Your task to perform on an android device: toggle pop-ups in chrome Image 0: 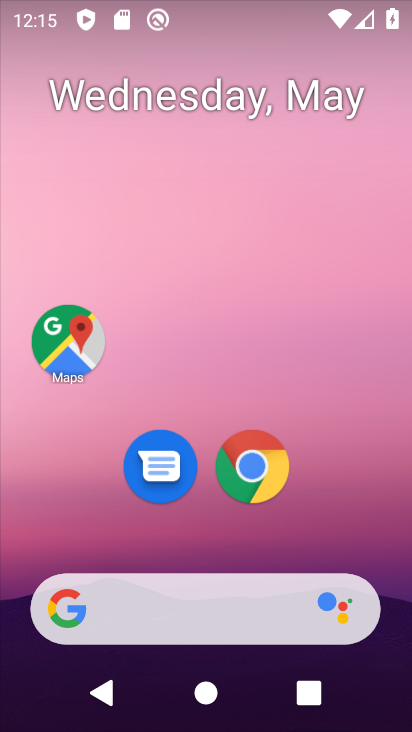
Step 0: click (249, 487)
Your task to perform on an android device: toggle pop-ups in chrome Image 1: 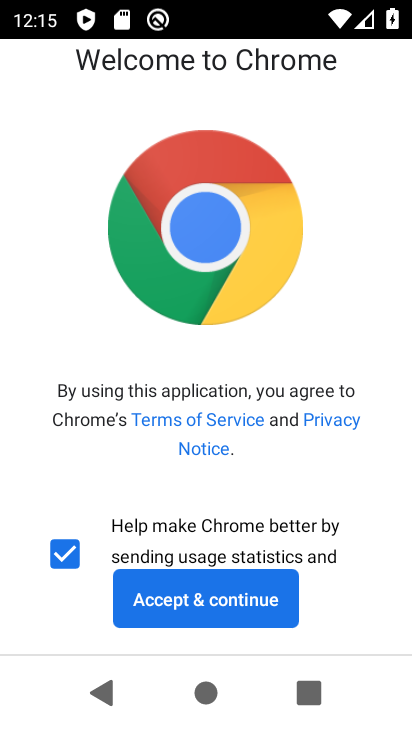
Step 1: click (237, 610)
Your task to perform on an android device: toggle pop-ups in chrome Image 2: 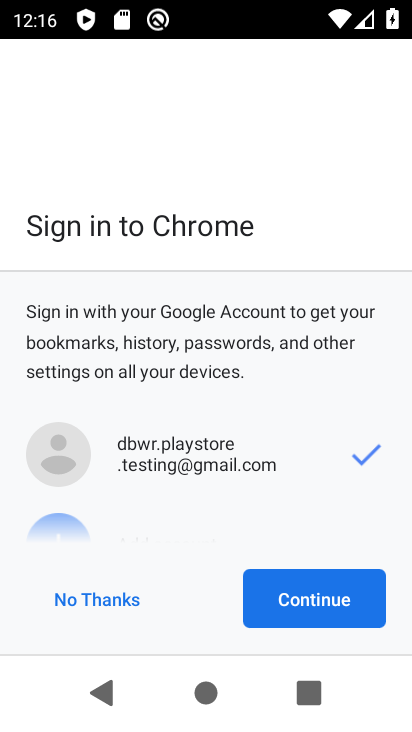
Step 2: click (352, 603)
Your task to perform on an android device: toggle pop-ups in chrome Image 3: 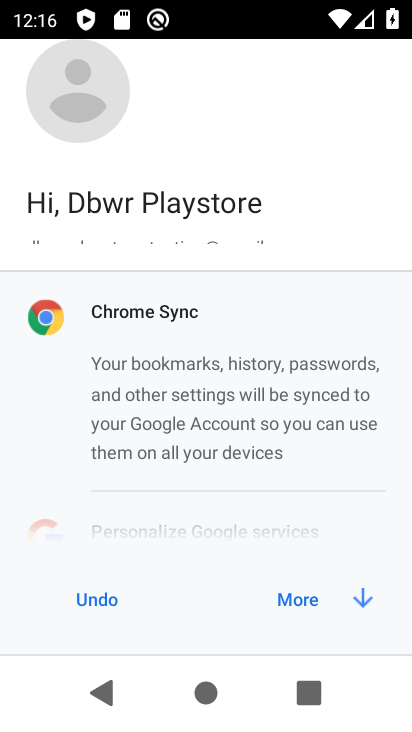
Step 3: click (352, 603)
Your task to perform on an android device: toggle pop-ups in chrome Image 4: 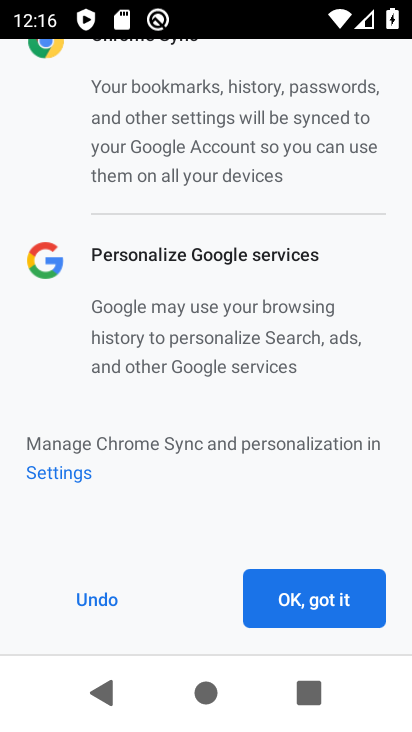
Step 4: click (352, 603)
Your task to perform on an android device: toggle pop-ups in chrome Image 5: 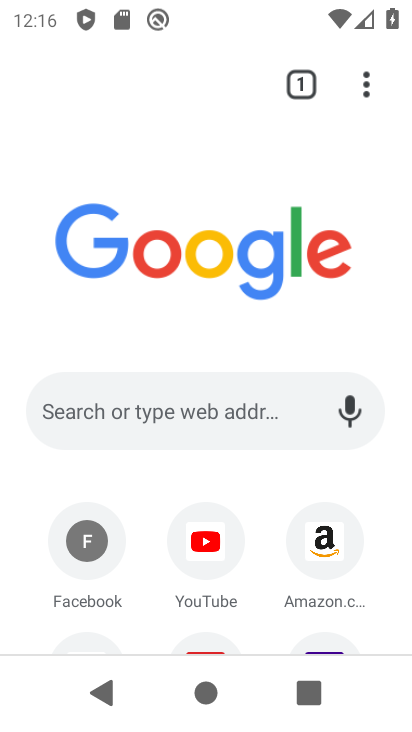
Step 5: click (376, 91)
Your task to perform on an android device: toggle pop-ups in chrome Image 6: 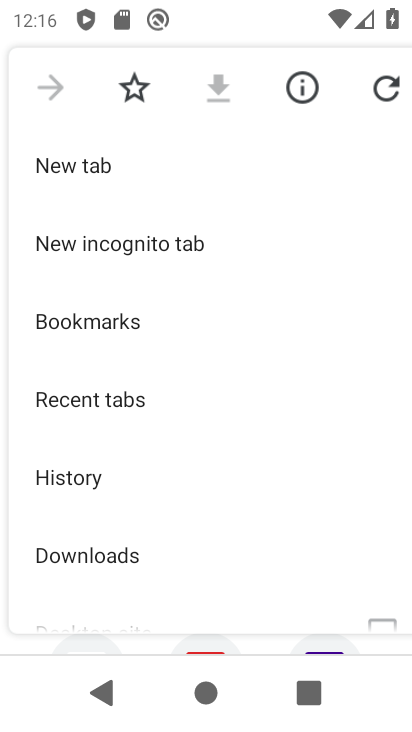
Step 6: drag from (198, 552) to (141, 127)
Your task to perform on an android device: toggle pop-ups in chrome Image 7: 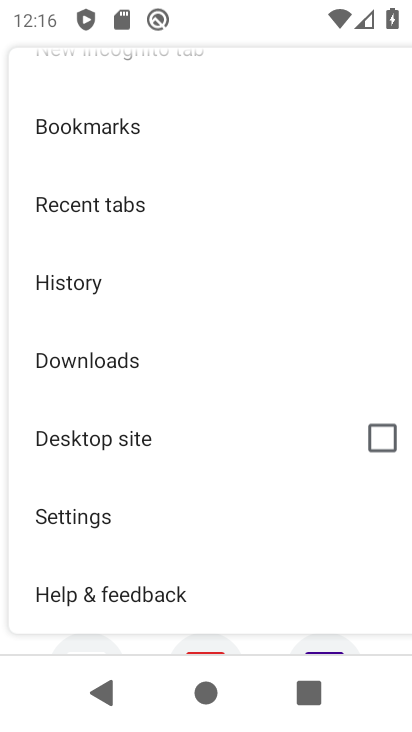
Step 7: click (97, 535)
Your task to perform on an android device: toggle pop-ups in chrome Image 8: 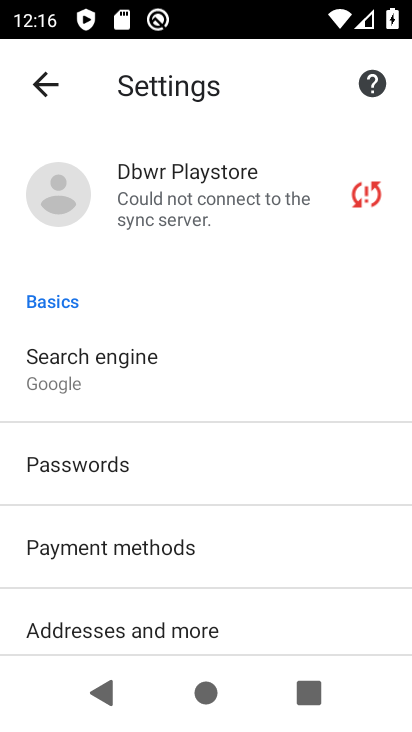
Step 8: drag from (167, 606) to (103, 213)
Your task to perform on an android device: toggle pop-ups in chrome Image 9: 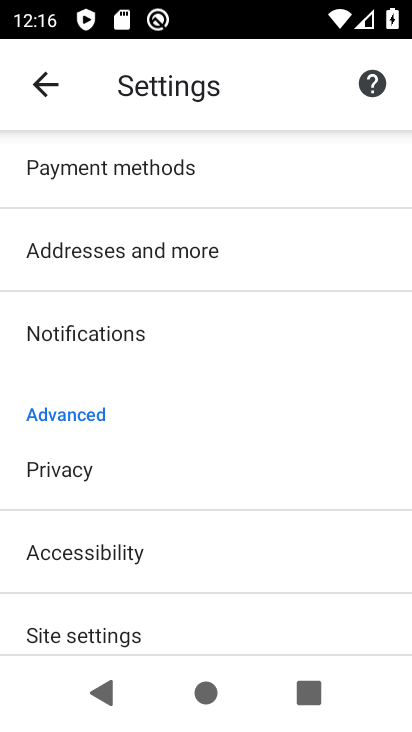
Step 9: drag from (119, 583) to (110, 232)
Your task to perform on an android device: toggle pop-ups in chrome Image 10: 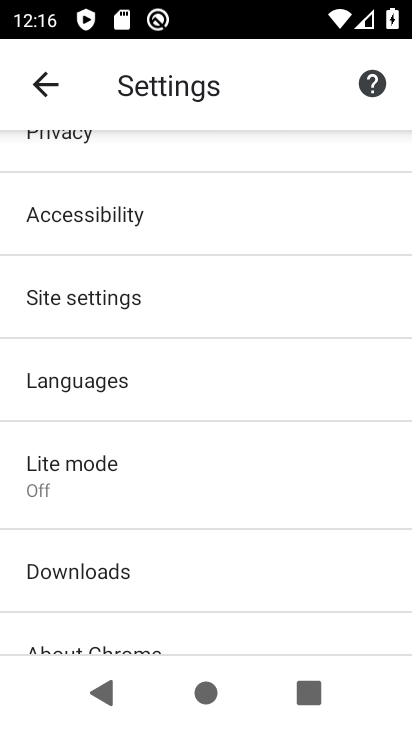
Step 10: click (126, 292)
Your task to perform on an android device: toggle pop-ups in chrome Image 11: 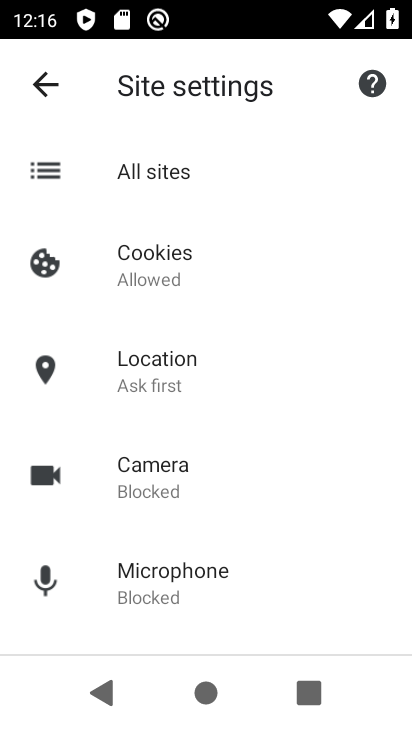
Step 11: drag from (204, 521) to (164, 137)
Your task to perform on an android device: toggle pop-ups in chrome Image 12: 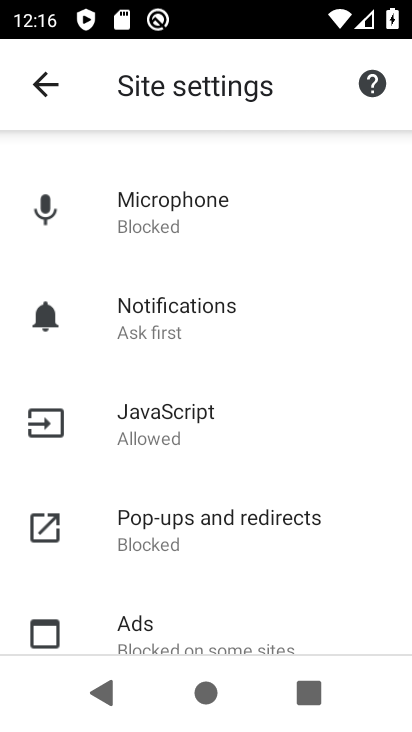
Step 12: click (211, 521)
Your task to perform on an android device: toggle pop-ups in chrome Image 13: 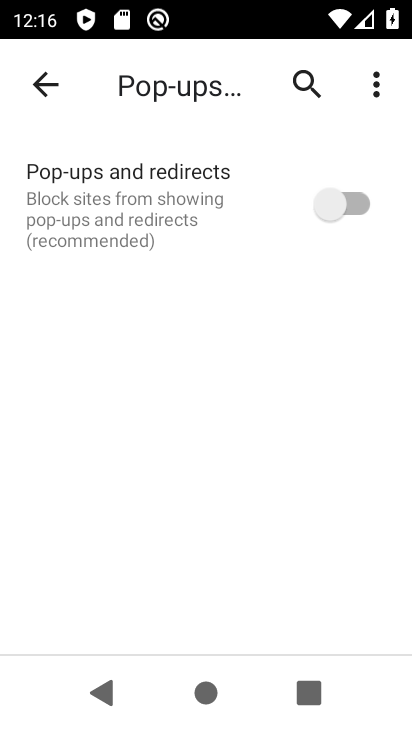
Step 13: click (367, 202)
Your task to perform on an android device: toggle pop-ups in chrome Image 14: 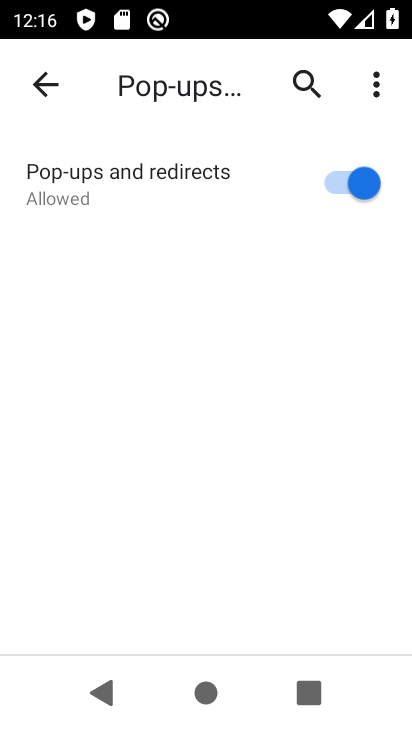
Step 14: task complete